Your task to perform on an android device: move a message to another label in the gmail app Image 0: 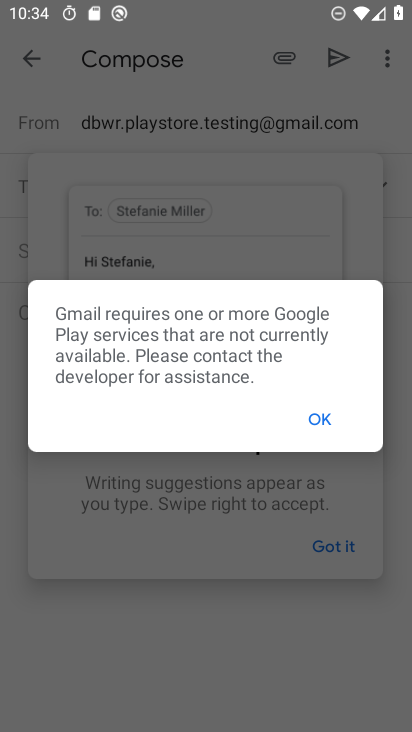
Step 0: press home button
Your task to perform on an android device: move a message to another label in the gmail app Image 1: 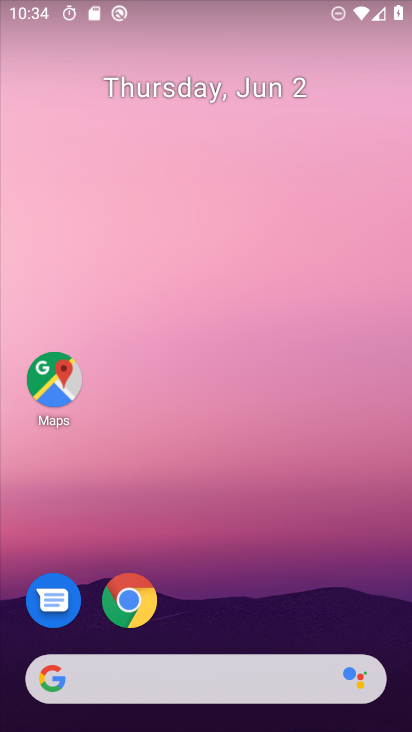
Step 1: drag from (194, 590) to (293, 24)
Your task to perform on an android device: move a message to another label in the gmail app Image 2: 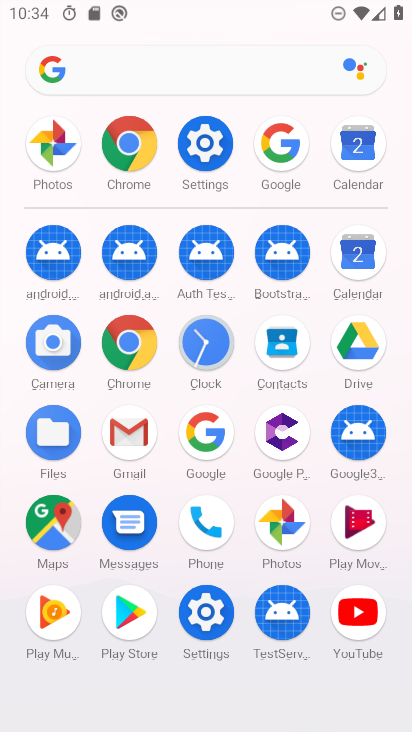
Step 2: click (127, 437)
Your task to perform on an android device: move a message to another label in the gmail app Image 3: 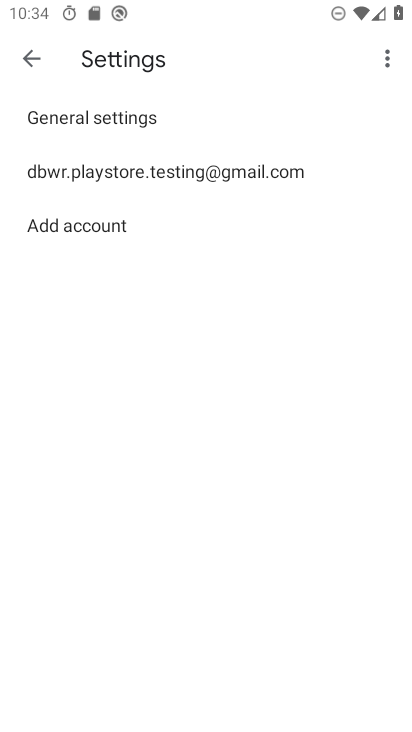
Step 3: click (162, 178)
Your task to perform on an android device: move a message to another label in the gmail app Image 4: 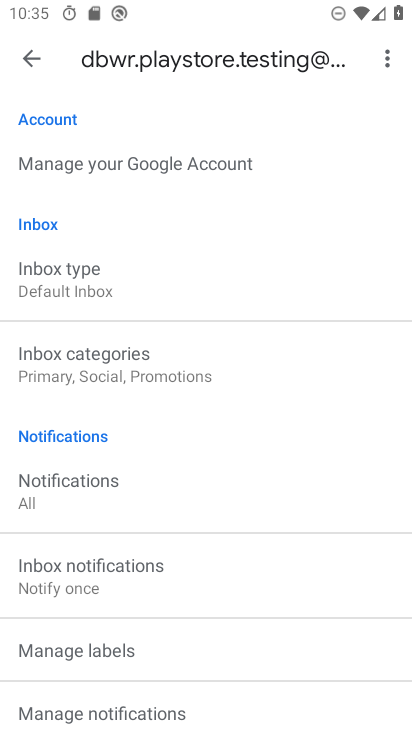
Step 4: press back button
Your task to perform on an android device: move a message to another label in the gmail app Image 5: 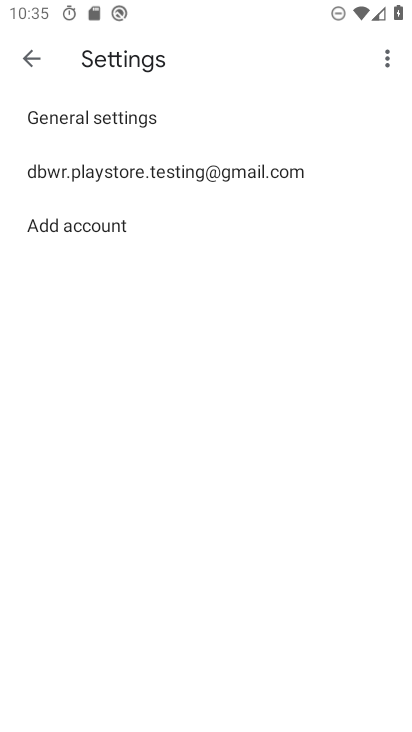
Step 5: press back button
Your task to perform on an android device: move a message to another label in the gmail app Image 6: 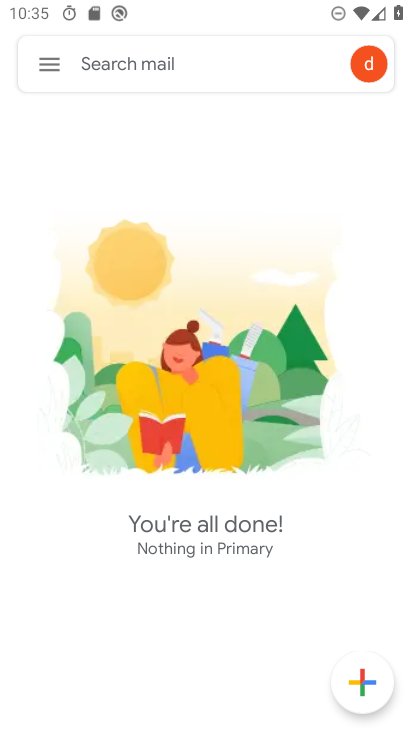
Step 6: click (55, 57)
Your task to perform on an android device: move a message to another label in the gmail app Image 7: 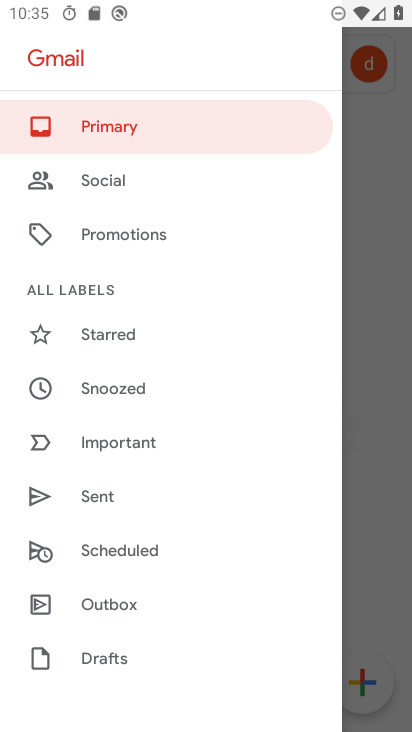
Step 7: drag from (160, 610) to (146, 64)
Your task to perform on an android device: move a message to another label in the gmail app Image 8: 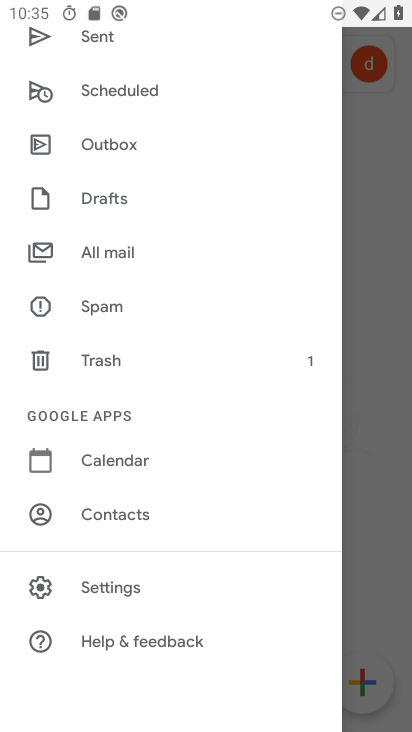
Step 8: click (144, 259)
Your task to perform on an android device: move a message to another label in the gmail app Image 9: 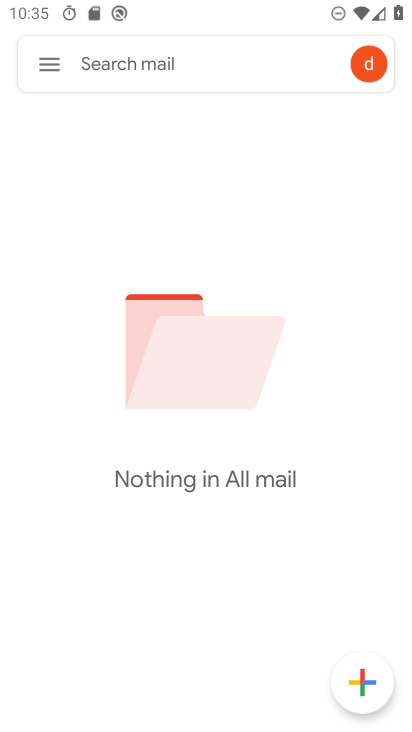
Step 9: task complete